Your task to perform on an android device: turn off smart reply in the gmail app Image 0: 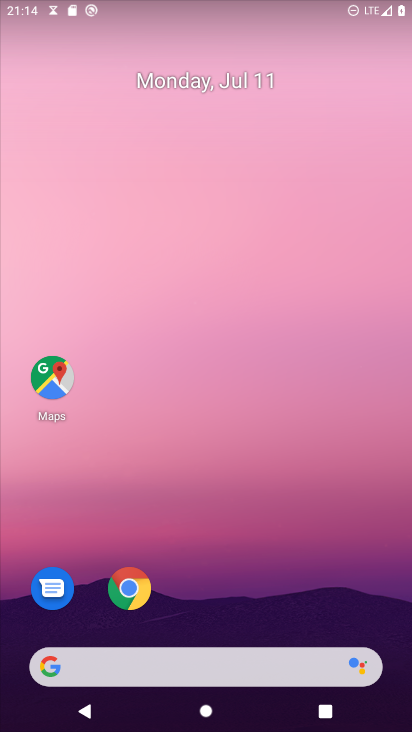
Step 0: press home button
Your task to perform on an android device: turn off smart reply in the gmail app Image 1: 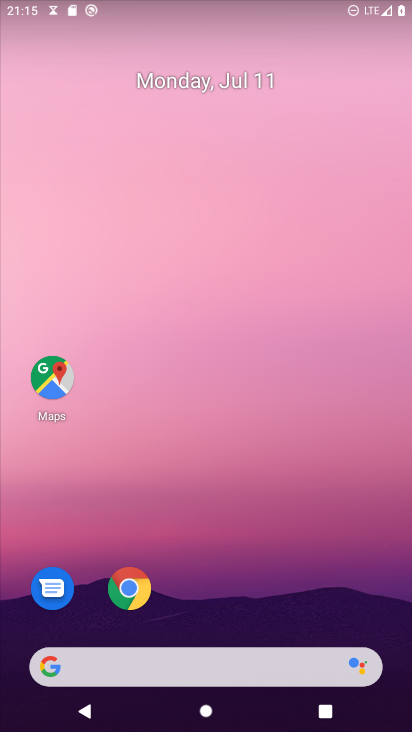
Step 1: drag from (201, 621) to (217, 218)
Your task to perform on an android device: turn off smart reply in the gmail app Image 2: 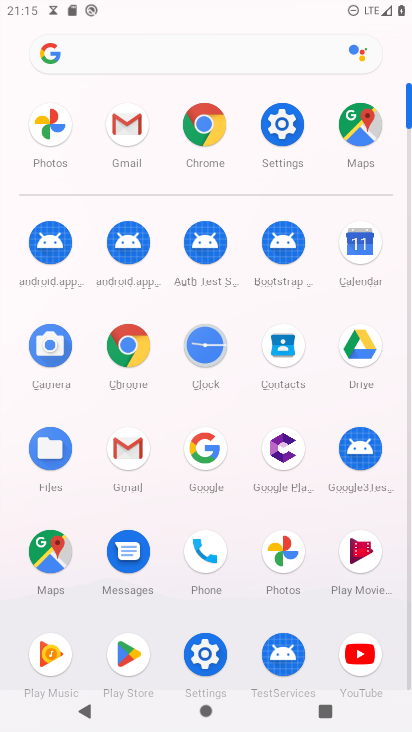
Step 2: drag from (208, 180) to (21, 360)
Your task to perform on an android device: turn off smart reply in the gmail app Image 3: 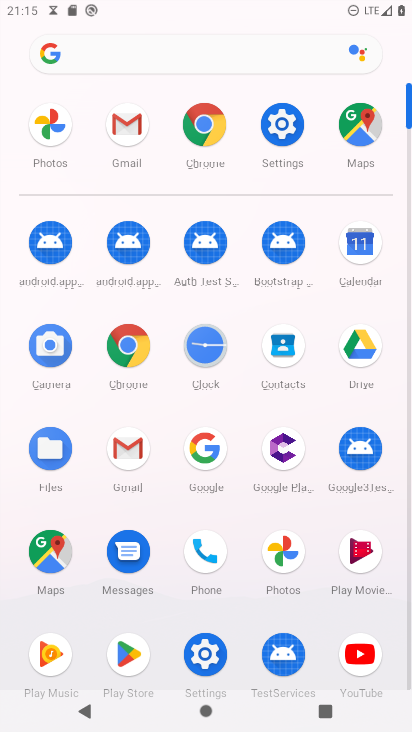
Step 3: click (124, 131)
Your task to perform on an android device: turn off smart reply in the gmail app Image 4: 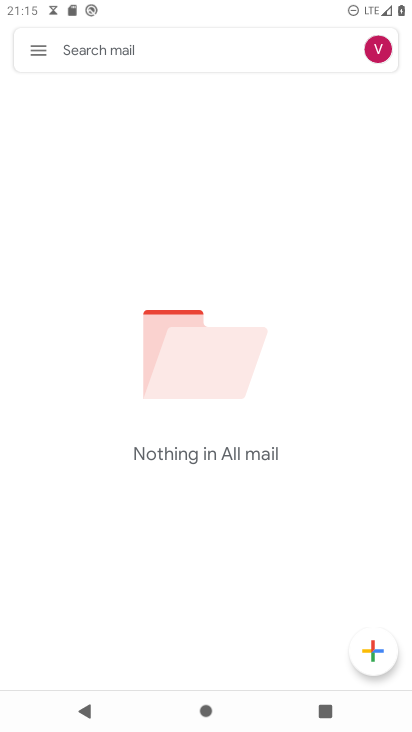
Step 4: click (40, 49)
Your task to perform on an android device: turn off smart reply in the gmail app Image 5: 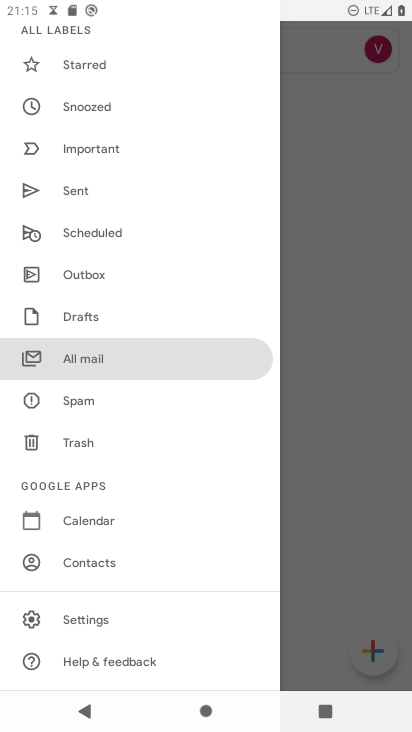
Step 5: click (94, 622)
Your task to perform on an android device: turn off smart reply in the gmail app Image 6: 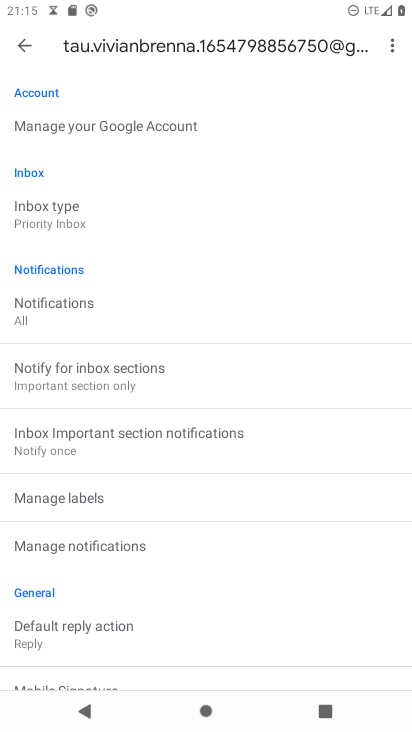
Step 6: drag from (262, 611) to (269, 188)
Your task to perform on an android device: turn off smart reply in the gmail app Image 7: 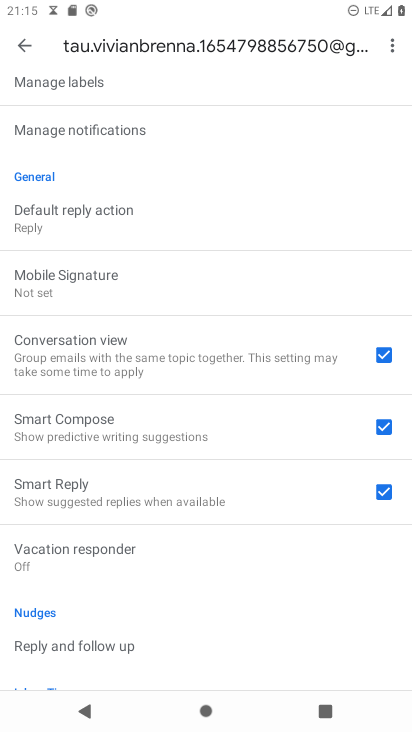
Step 7: click (383, 489)
Your task to perform on an android device: turn off smart reply in the gmail app Image 8: 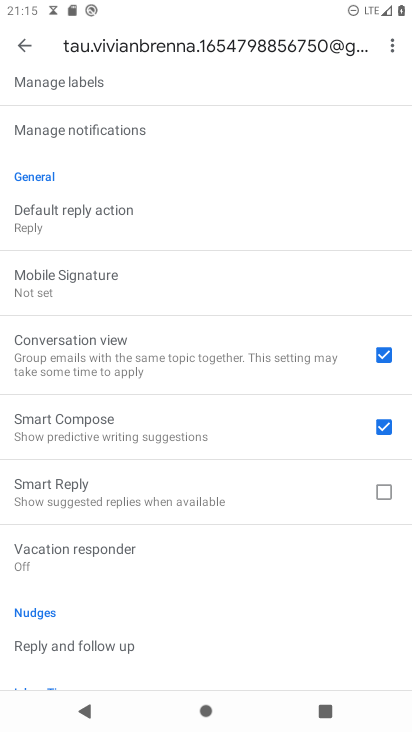
Step 8: task complete